Your task to perform on an android device: Play the last video I watched on Youtube Image 0: 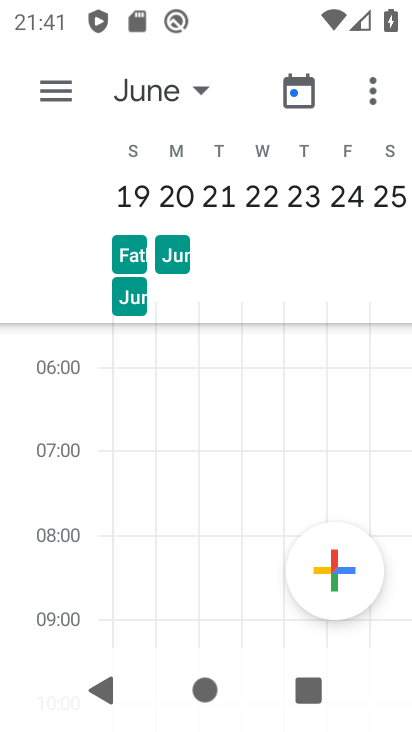
Step 0: press home button
Your task to perform on an android device: Play the last video I watched on Youtube Image 1: 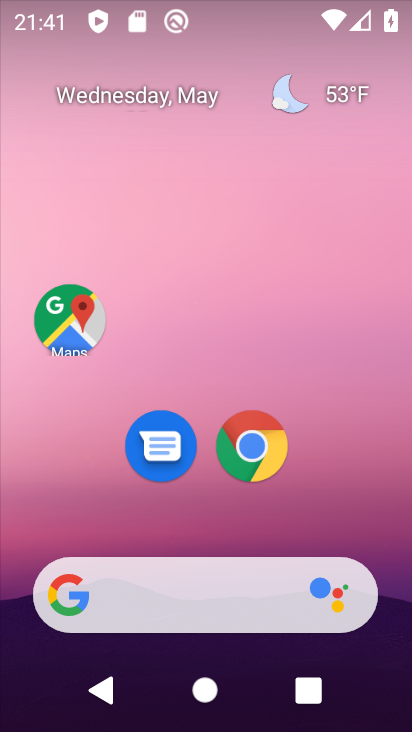
Step 1: drag from (366, 476) to (253, 124)
Your task to perform on an android device: Play the last video I watched on Youtube Image 2: 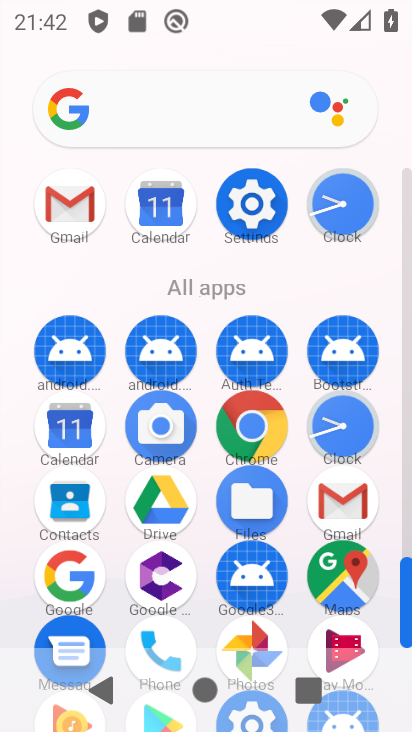
Step 2: drag from (291, 274) to (196, 0)
Your task to perform on an android device: Play the last video I watched on Youtube Image 3: 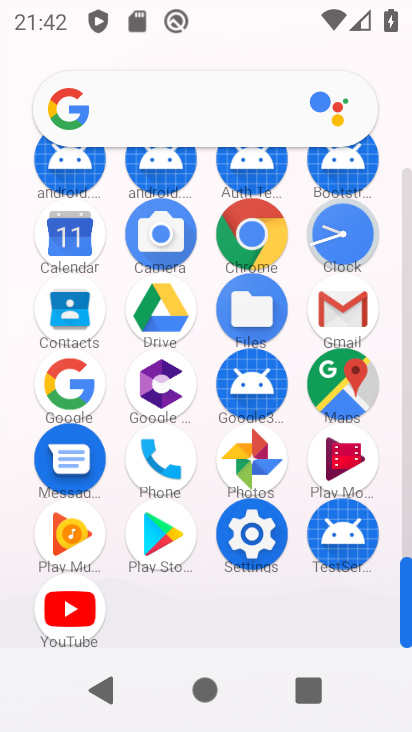
Step 3: click (66, 620)
Your task to perform on an android device: Play the last video I watched on Youtube Image 4: 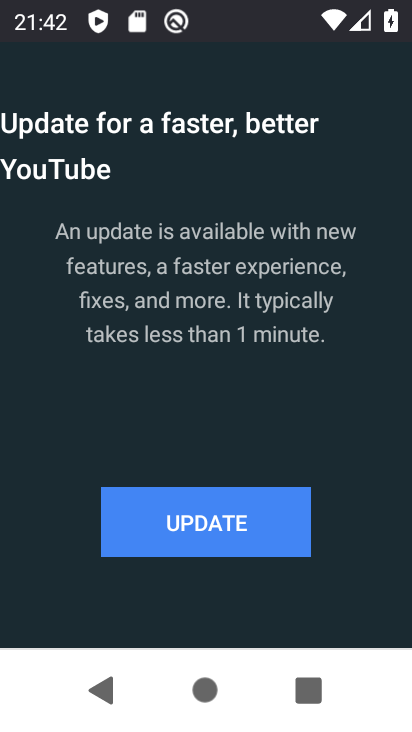
Step 4: click (298, 508)
Your task to perform on an android device: Play the last video I watched on Youtube Image 5: 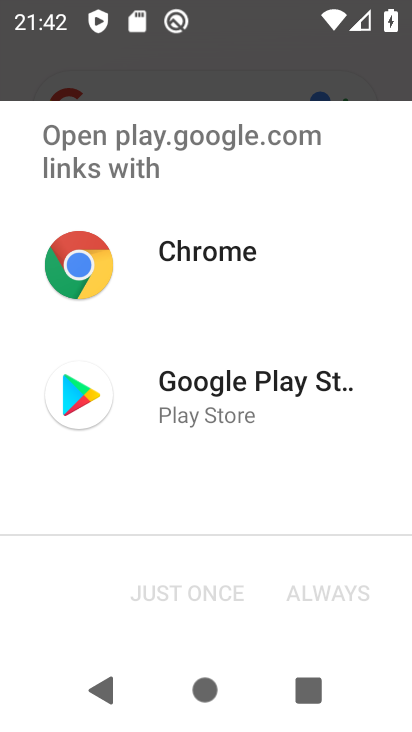
Step 5: click (200, 403)
Your task to perform on an android device: Play the last video I watched on Youtube Image 6: 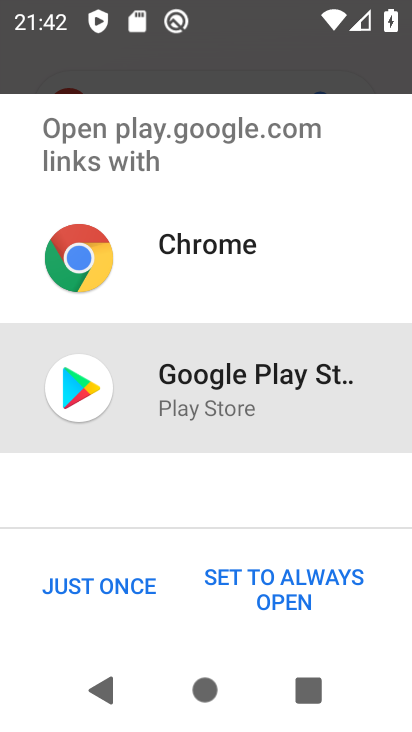
Step 6: click (134, 585)
Your task to perform on an android device: Play the last video I watched on Youtube Image 7: 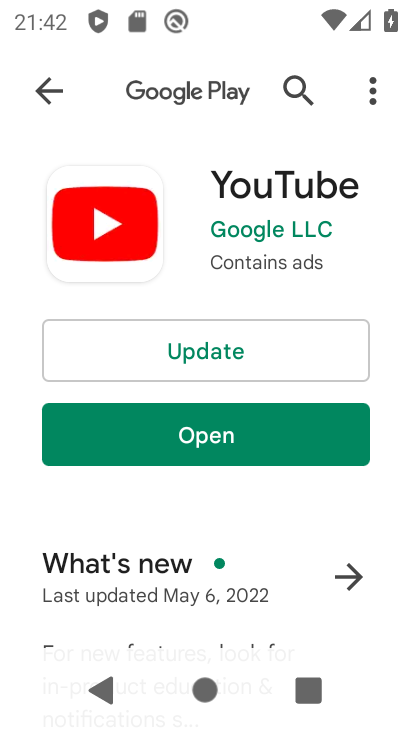
Step 7: click (168, 360)
Your task to perform on an android device: Play the last video I watched on Youtube Image 8: 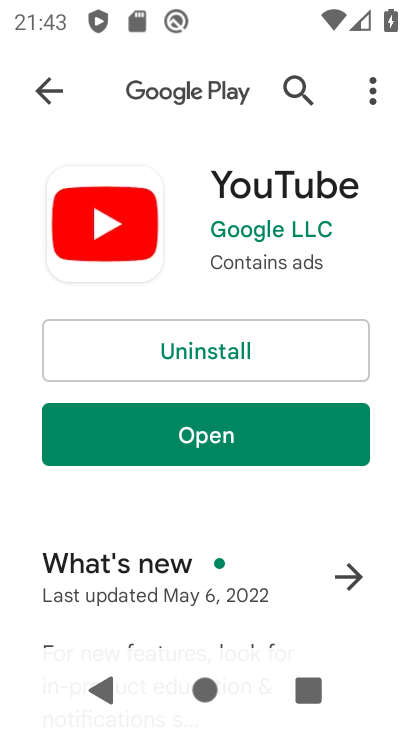
Step 8: click (219, 427)
Your task to perform on an android device: Play the last video I watched on Youtube Image 9: 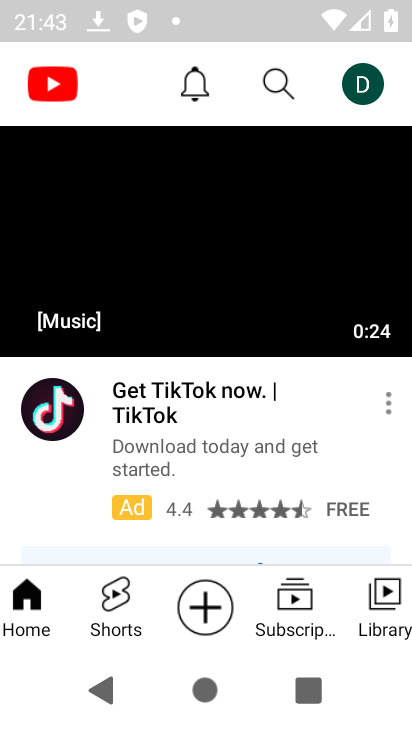
Step 9: click (384, 615)
Your task to perform on an android device: Play the last video I watched on Youtube Image 10: 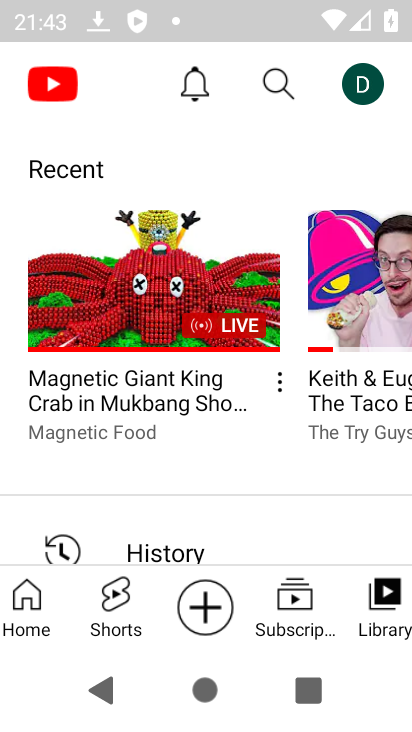
Step 10: click (108, 288)
Your task to perform on an android device: Play the last video I watched on Youtube Image 11: 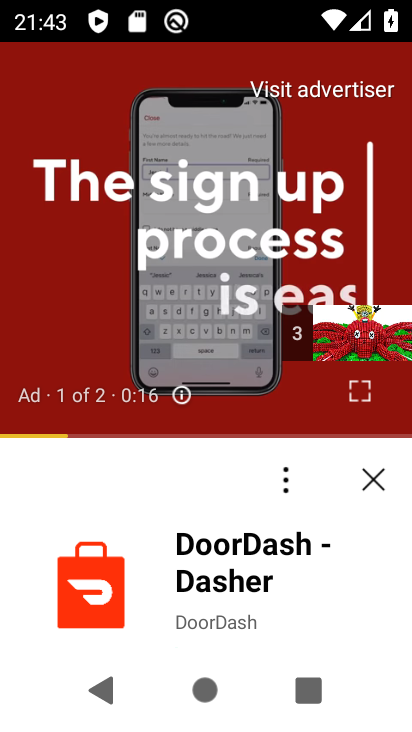
Step 11: task complete